Your task to perform on an android device: Open network settings Image 0: 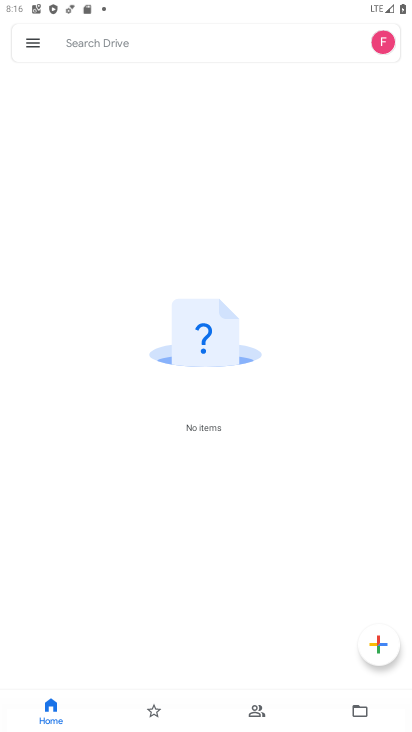
Step 0: drag from (257, 472) to (306, 187)
Your task to perform on an android device: Open network settings Image 1: 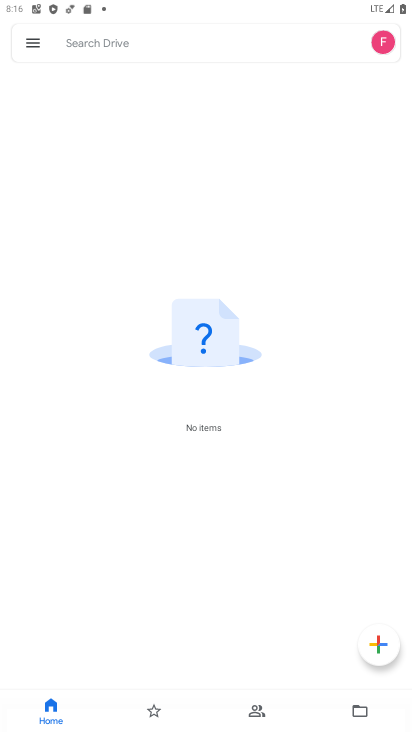
Step 1: press home button
Your task to perform on an android device: Open network settings Image 2: 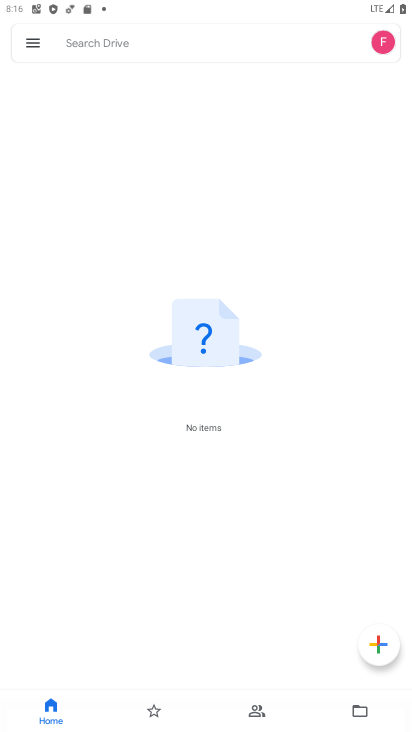
Step 2: press home button
Your task to perform on an android device: Open network settings Image 3: 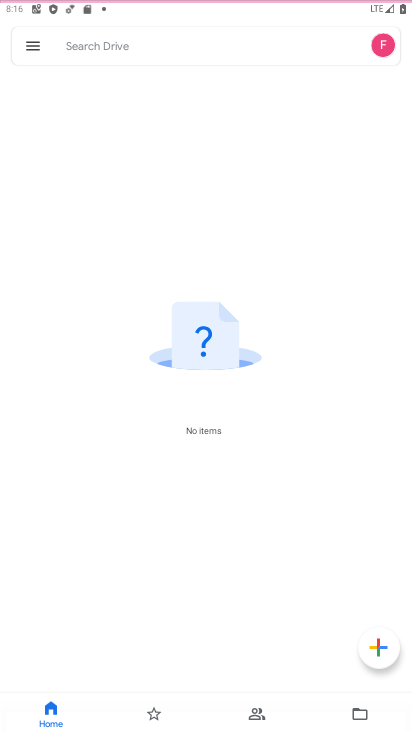
Step 3: click (295, 161)
Your task to perform on an android device: Open network settings Image 4: 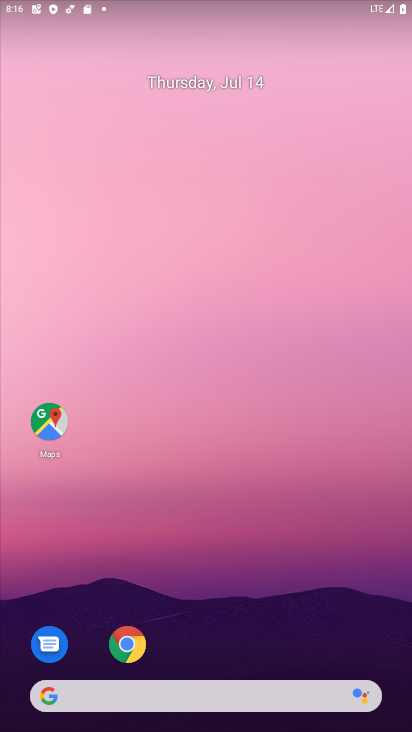
Step 4: drag from (195, 637) to (177, 110)
Your task to perform on an android device: Open network settings Image 5: 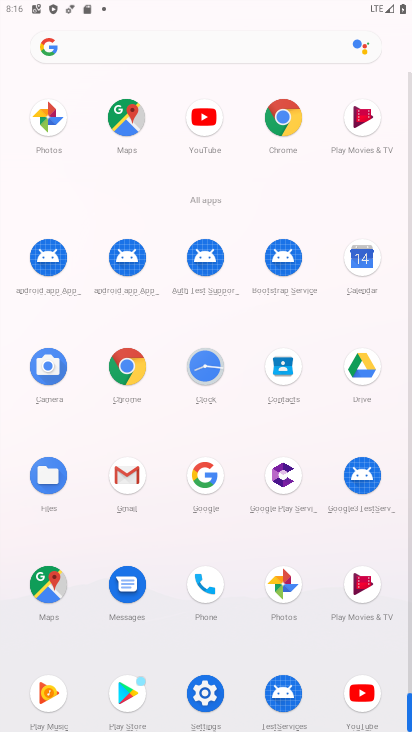
Step 5: click (211, 693)
Your task to perform on an android device: Open network settings Image 6: 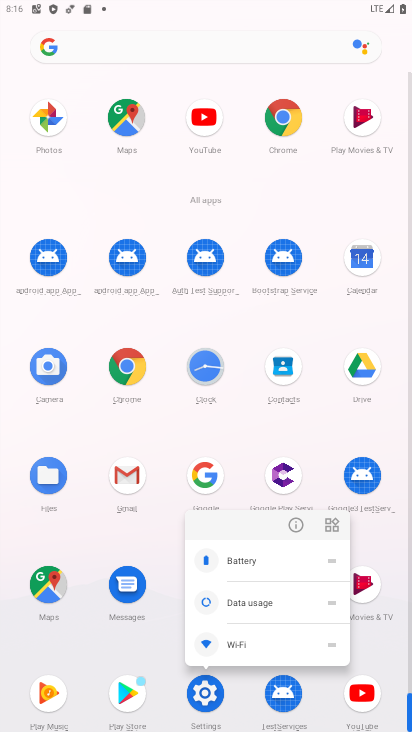
Step 6: click (290, 521)
Your task to perform on an android device: Open network settings Image 7: 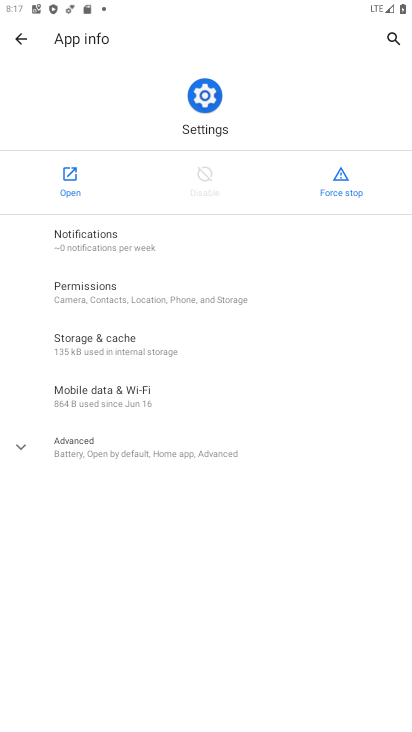
Step 7: click (72, 167)
Your task to perform on an android device: Open network settings Image 8: 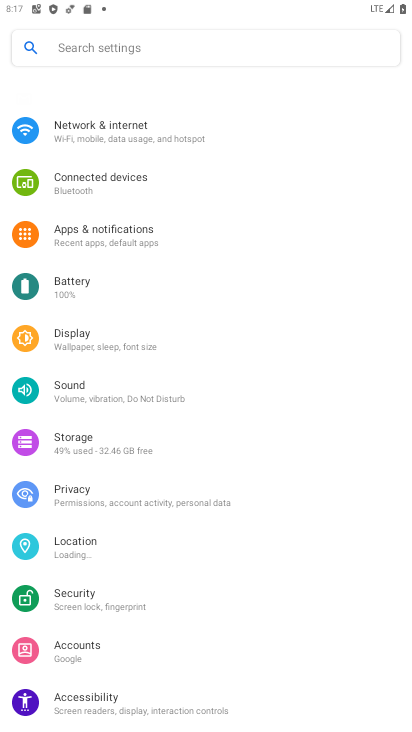
Step 8: drag from (212, 465) to (212, 27)
Your task to perform on an android device: Open network settings Image 9: 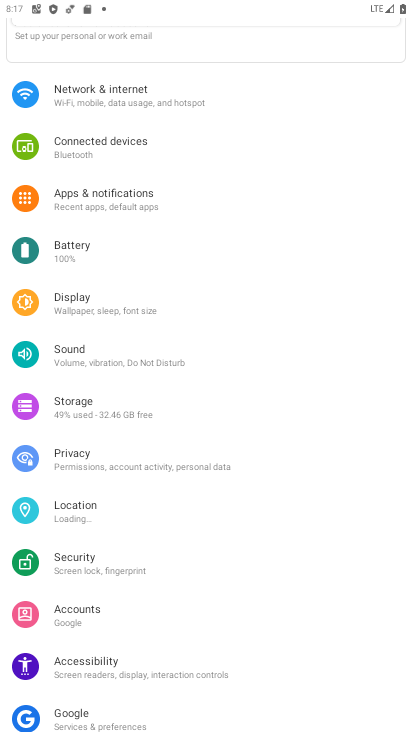
Step 9: drag from (166, 217) to (193, 731)
Your task to perform on an android device: Open network settings Image 10: 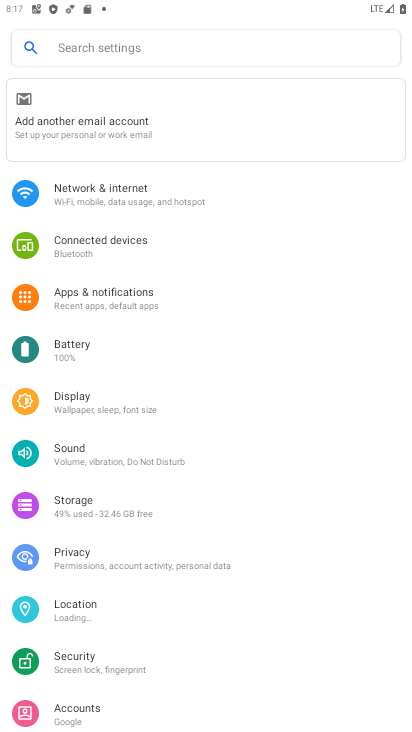
Step 10: click (144, 185)
Your task to perform on an android device: Open network settings Image 11: 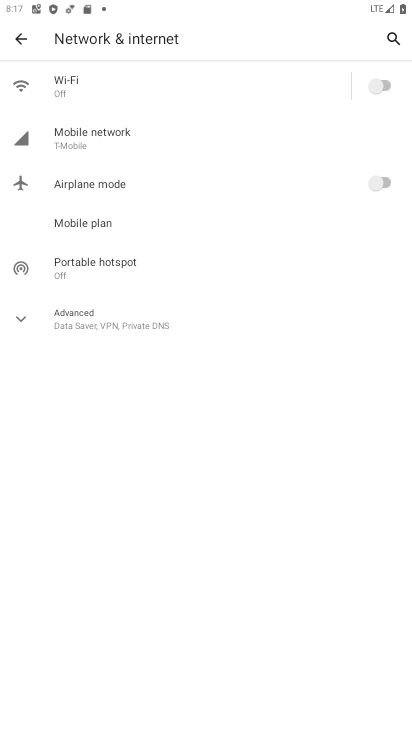
Step 11: task complete